Your task to perform on an android device: star an email in the gmail app Image 0: 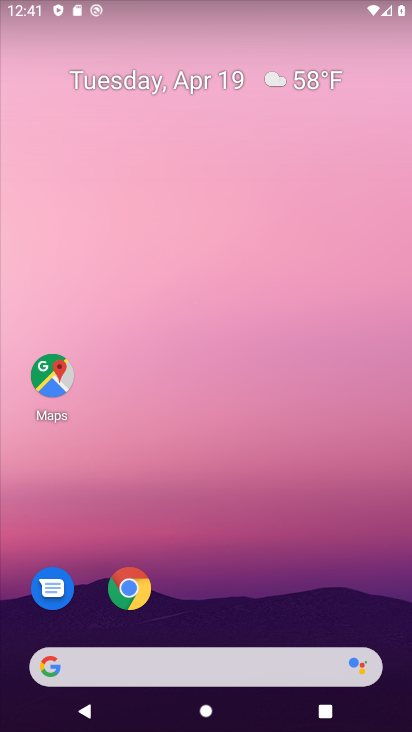
Step 0: drag from (207, 613) to (197, 123)
Your task to perform on an android device: star an email in the gmail app Image 1: 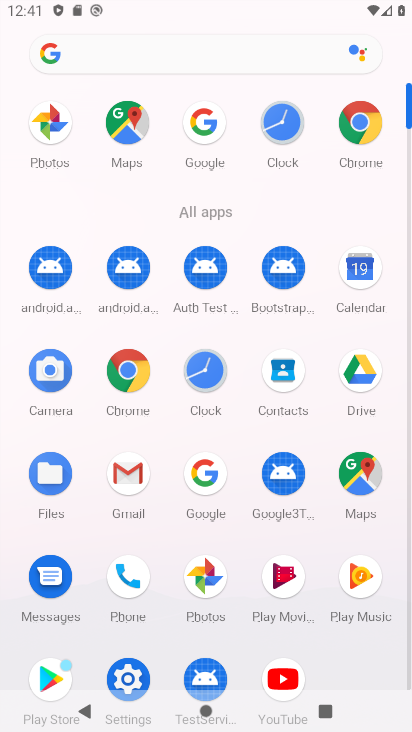
Step 1: click (132, 475)
Your task to perform on an android device: star an email in the gmail app Image 2: 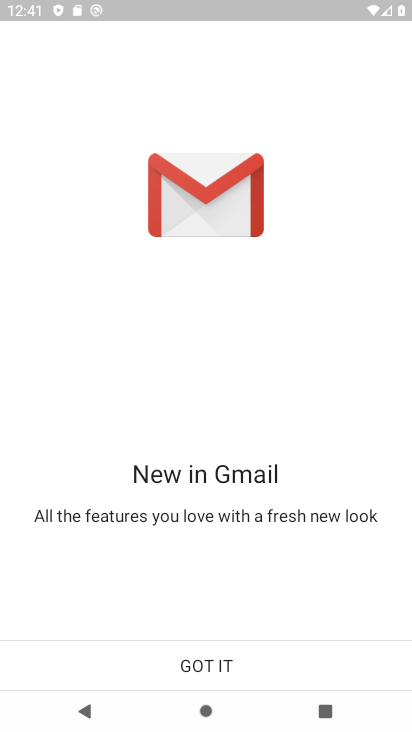
Step 2: click (255, 660)
Your task to perform on an android device: star an email in the gmail app Image 3: 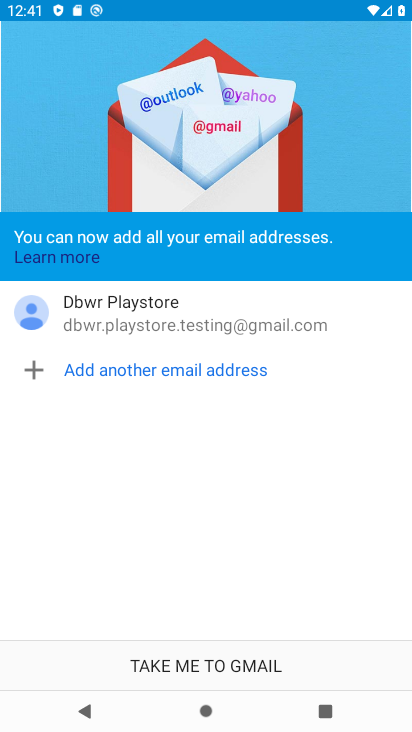
Step 3: click (233, 651)
Your task to perform on an android device: star an email in the gmail app Image 4: 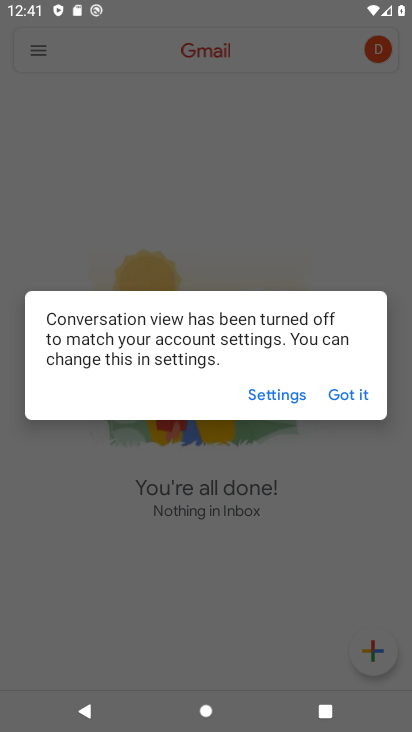
Step 4: click (344, 395)
Your task to perform on an android device: star an email in the gmail app Image 5: 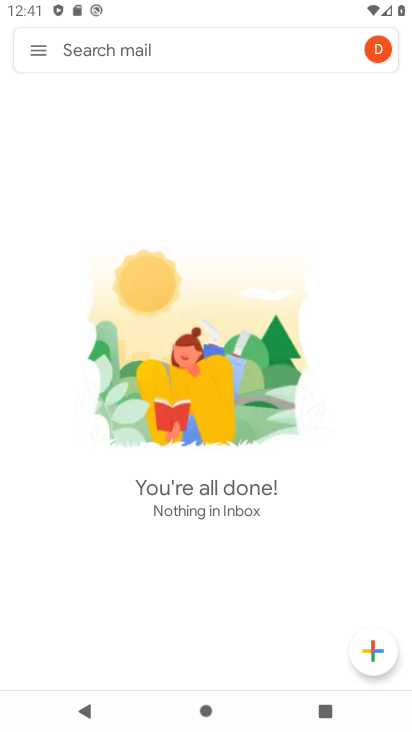
Step 5: click (34, 56)
Your task to perform on an android device: star an email in the gmail app Image 6: 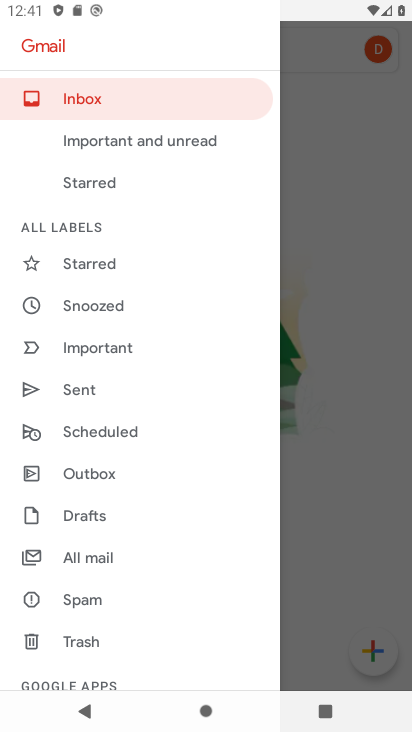
Step 6: click (118, 563)
Your task to perform on an android device: star an email in the gmail app Image 7: 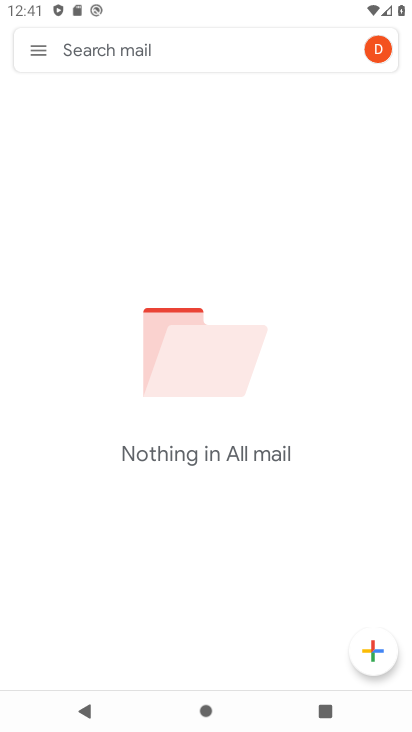
Step 7: task complete